Your task to perform on an android device: install app "HBO Max: Stream TV & Movies" Image 0: 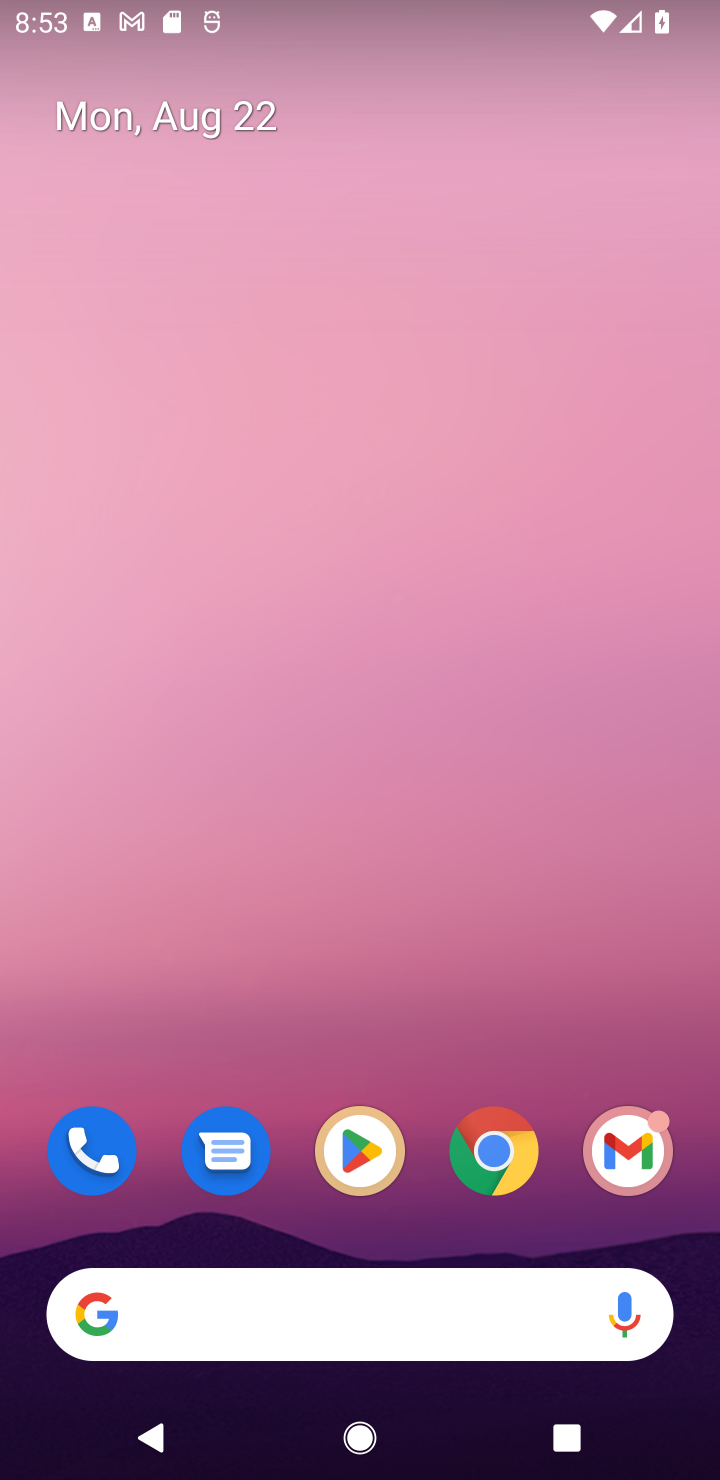
Step 0: click (355, 1164)
Your task to perform on an android device: install app "HBO Max: Stream TV & Movies" Image 1: 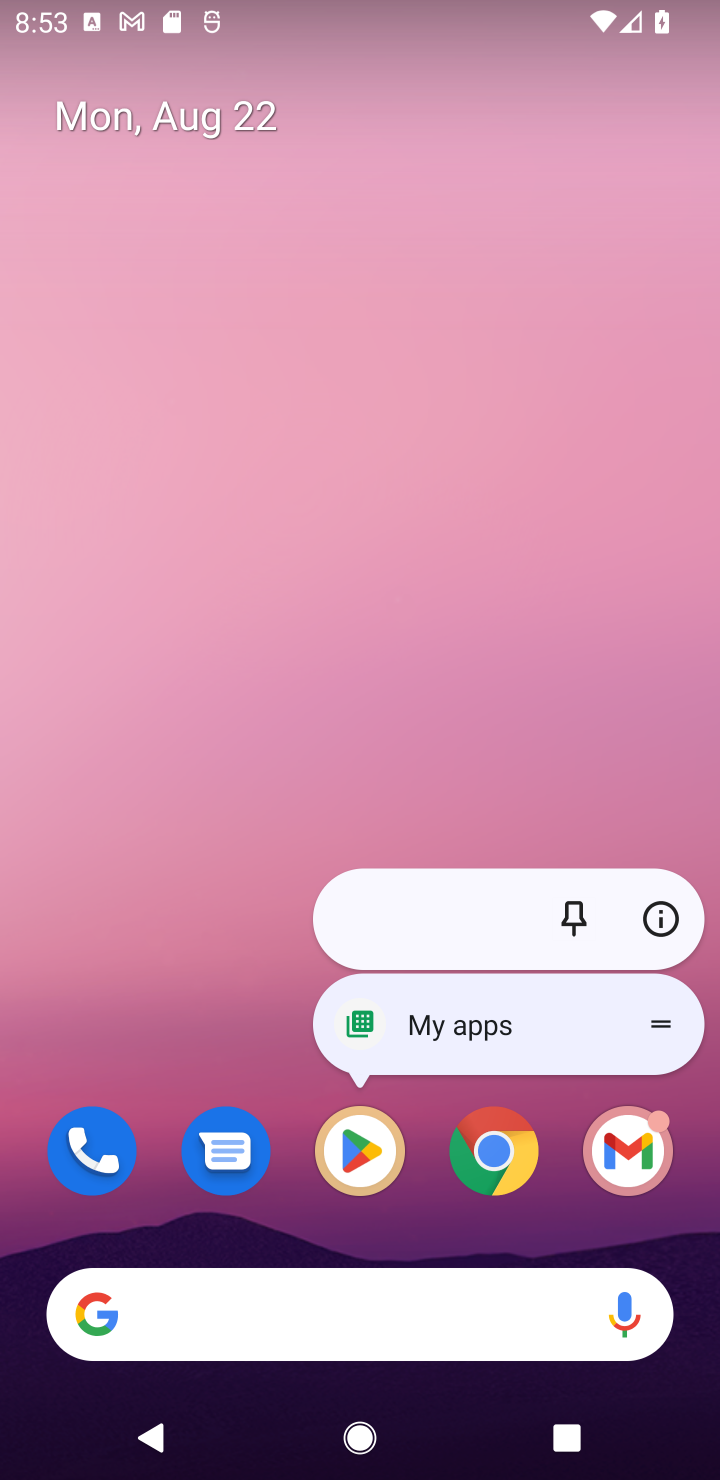
Step 1: click (360, 1152)
Your task to perform on an android device: install app "HBO Max: Stream TV & Movies" Image 2: 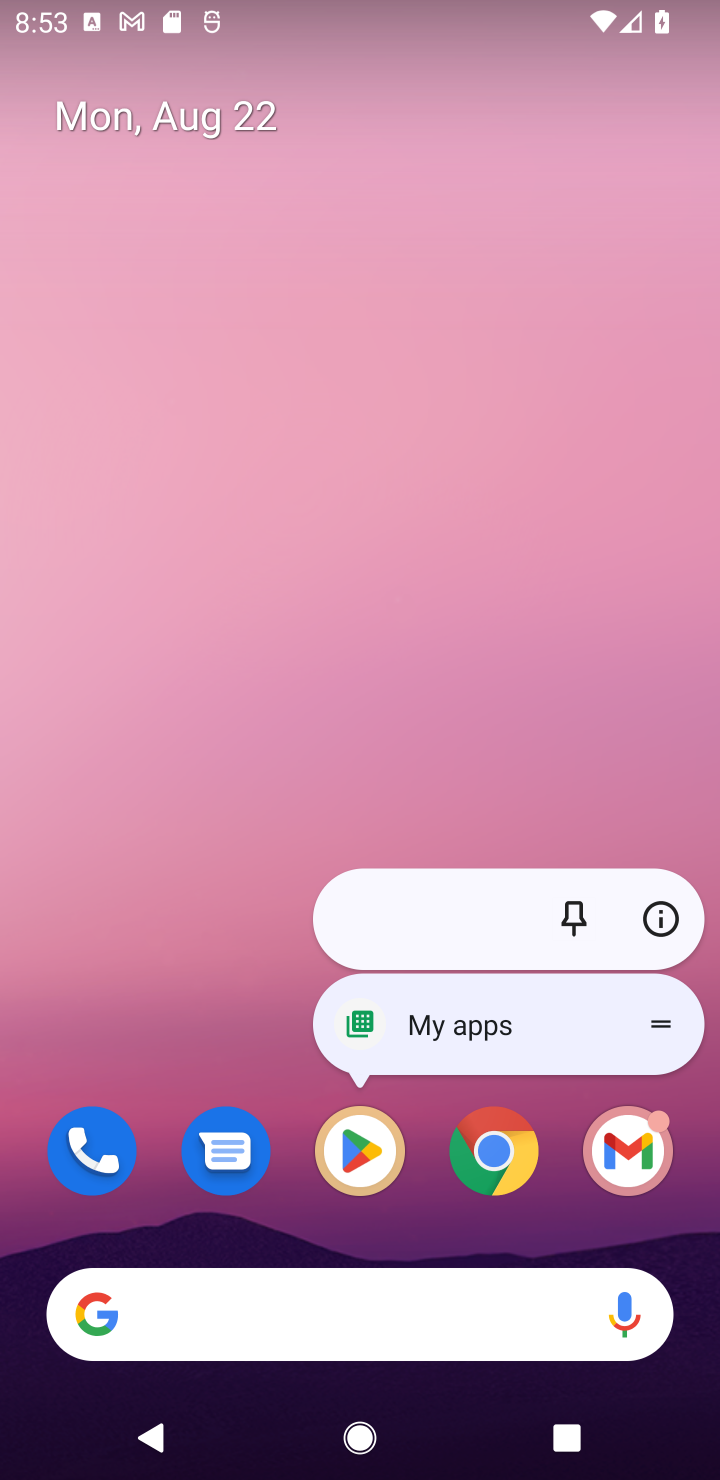
Step 2: click (360, 1158)
Your task to perform on an android device: install app "HBO Max: Stream TV & Movies" Image 3: 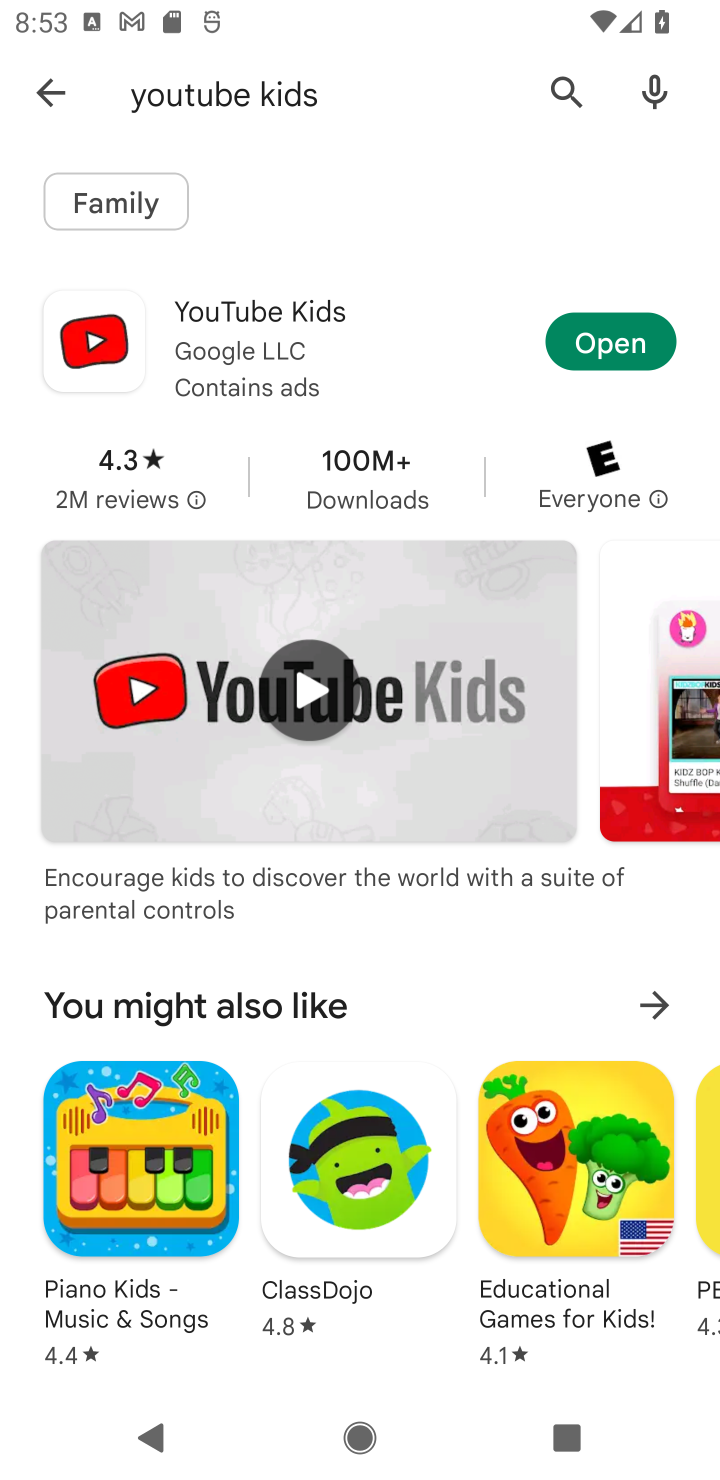
Step 3: click (560, 88)
Your task to perform on an android device: install app "HBO Max: Stream TV & Movies" Image 4: 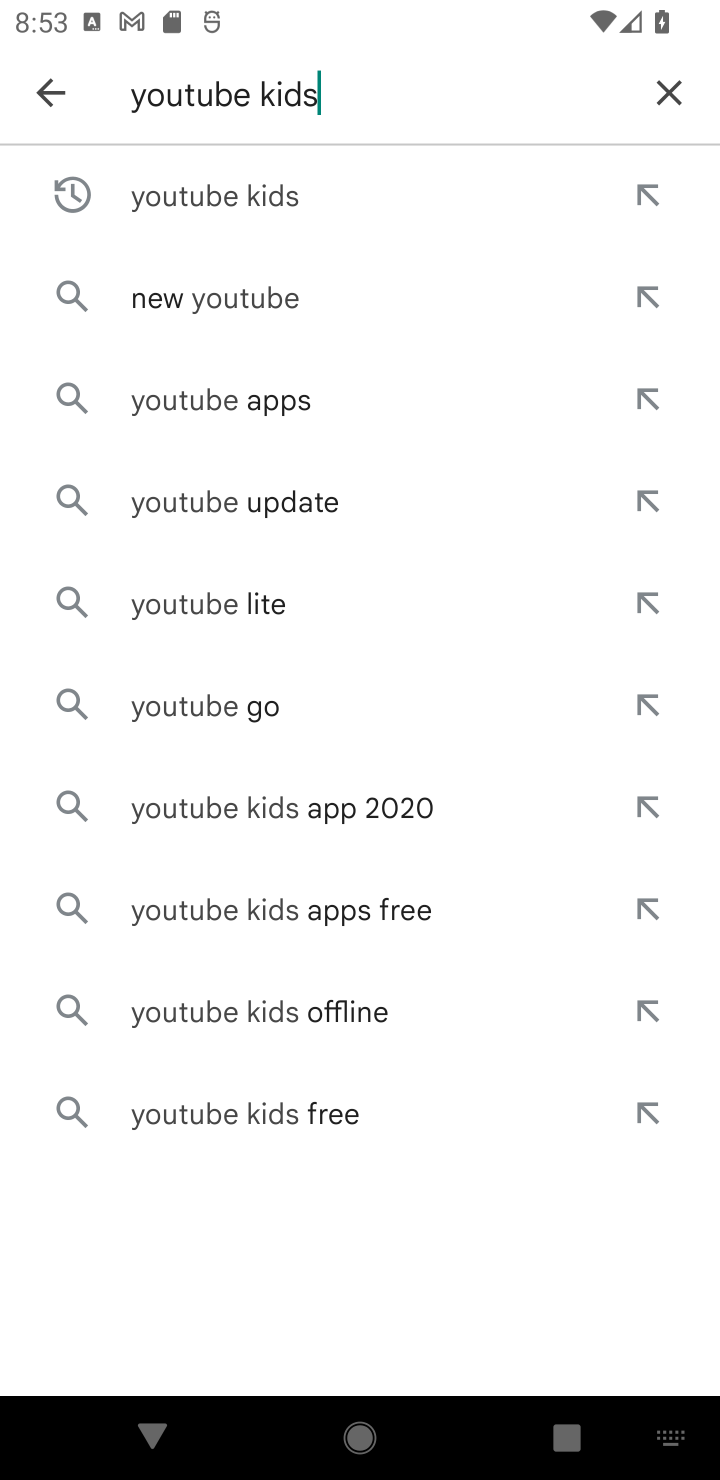
Step 4: click (662, 86)
Your task to perform on an android device: install app "HBO Max: Stream TV & Movies" Image 5: 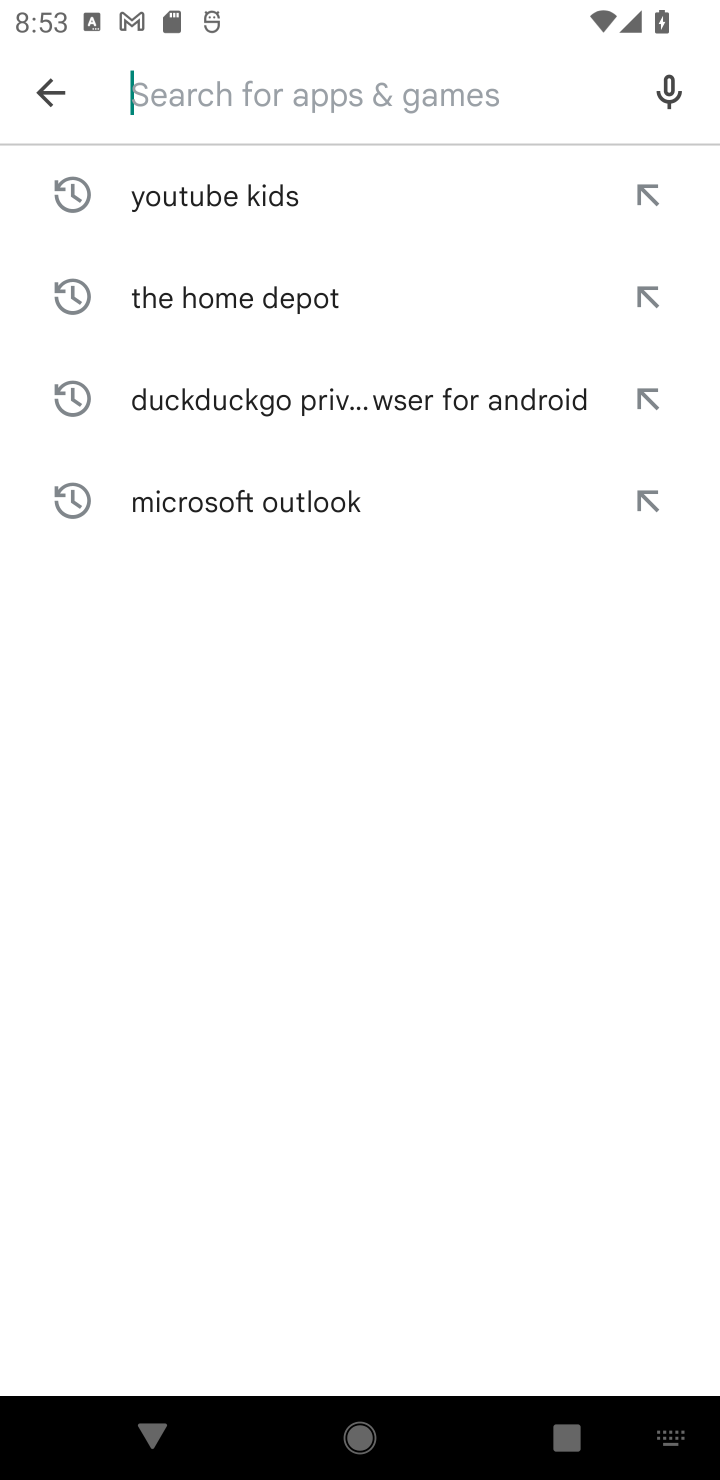
Step 5: type "HBO Max: Stream TV & Movies"
Your task to perform on an android device: install app "HBO Max: Stream TV & Movies" Image 6: 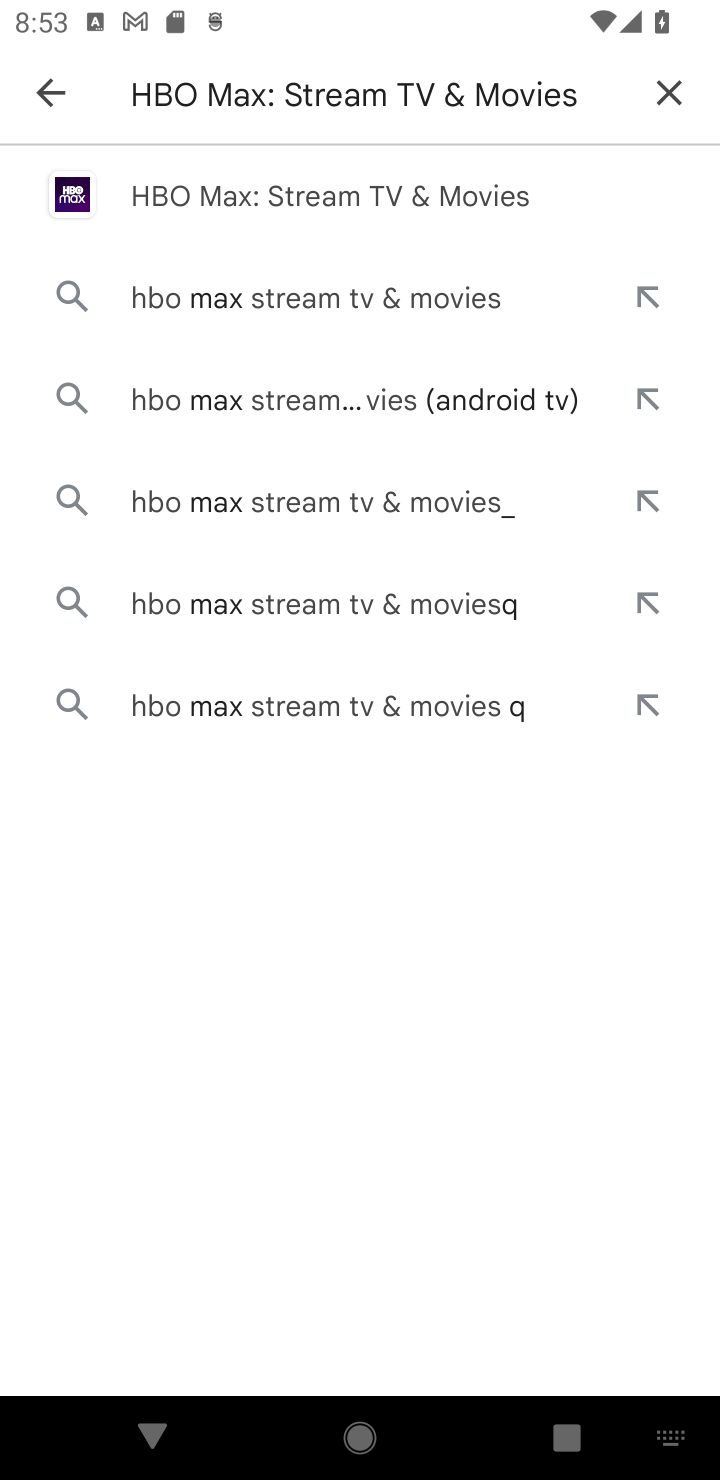
Step 6: click (236, 191)
Your task to perform on an android device: install app "HBO Max: Stream TV & Movies" Image 7: 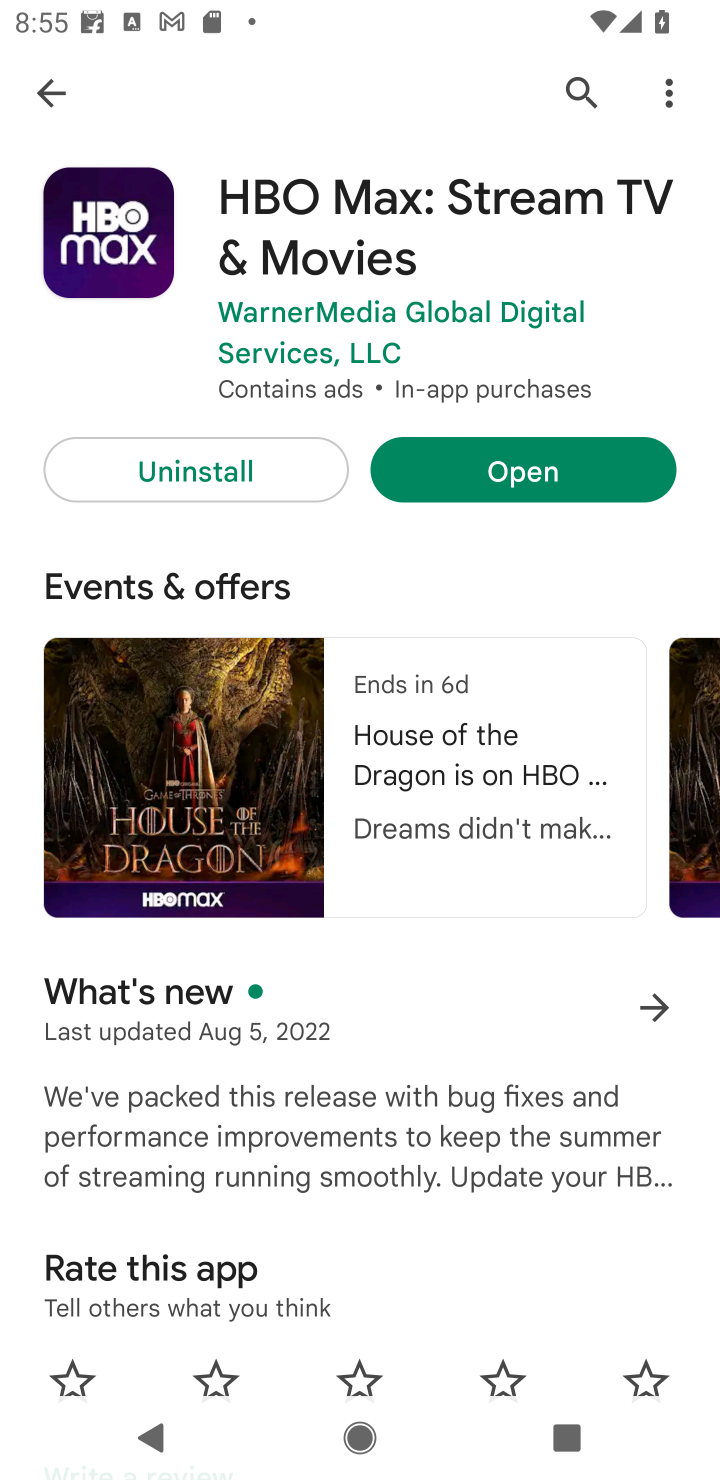
Step 7: task complete